Your task to perform on an android device: search for starred emails in the gmail app Image 0: 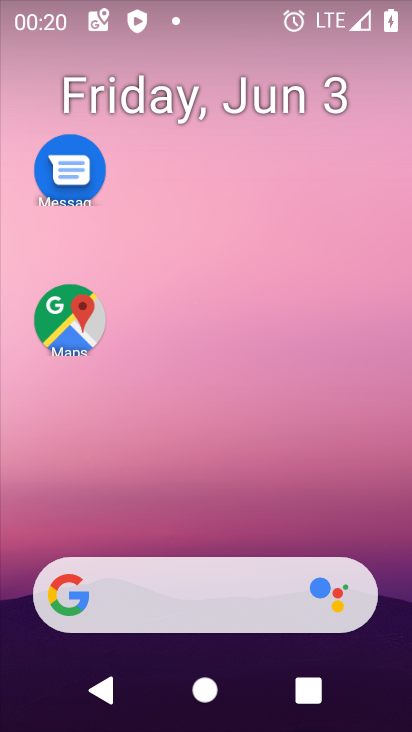
Step 0: drag from (276, 507) to (294, 48)
Your task to perform on an android device: search for starred emails in the gmail app Image 1: 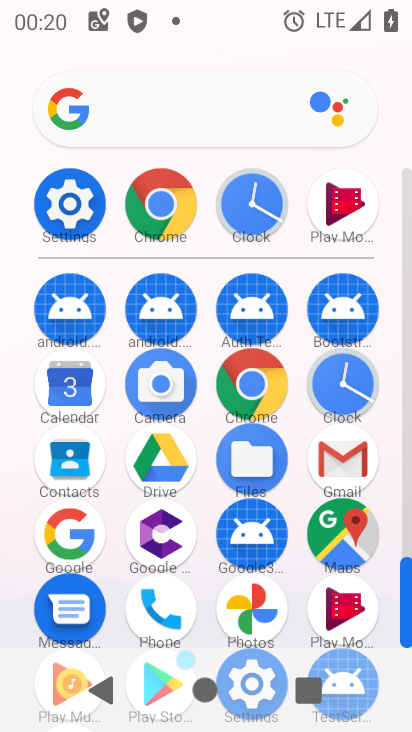
Step 1: click (342, 443)
Your task to perform on an android device: search for starred emails in the gmail app Image 2: 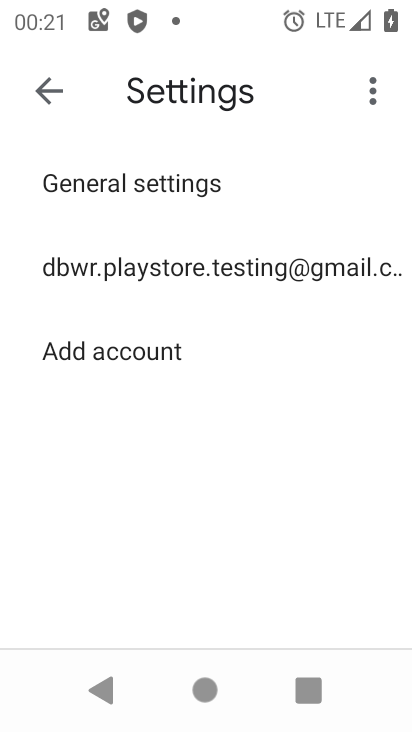
Step 2: click (68, 293)
Your task to perform on an android device: search for starred emails in the gmail app Image 3: 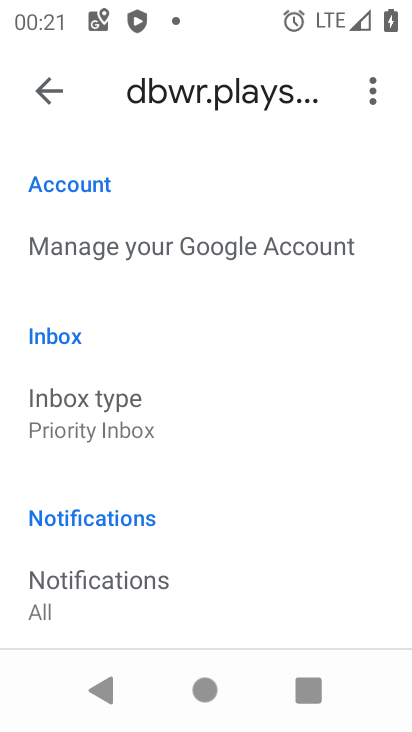
Step 3: click (38, 79)
Your task to perform on an android device: search for starred emails in the gmail app Image 4: 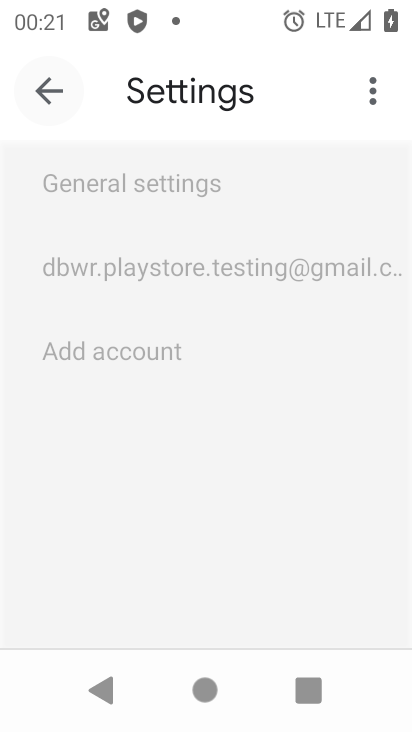
Step 4: click (38, 79)
Your task to perform on an android device: search for starred emails in the gmail app Image 5: 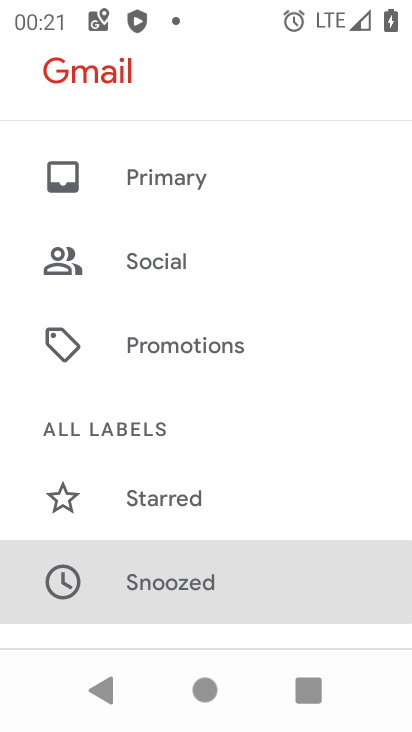
Step 5: drag from (138, 273) to (198, 138)
Your task to perform on an android device: search for starred emails in the gmail app Image 6: 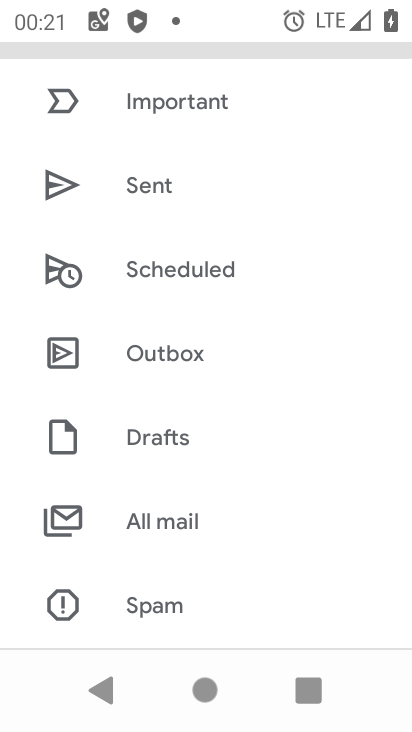
Step 6: drag from (198, 180) to (159, 723)
Your task to perform on an android device: search for starred emails in the gmail app Image 7: 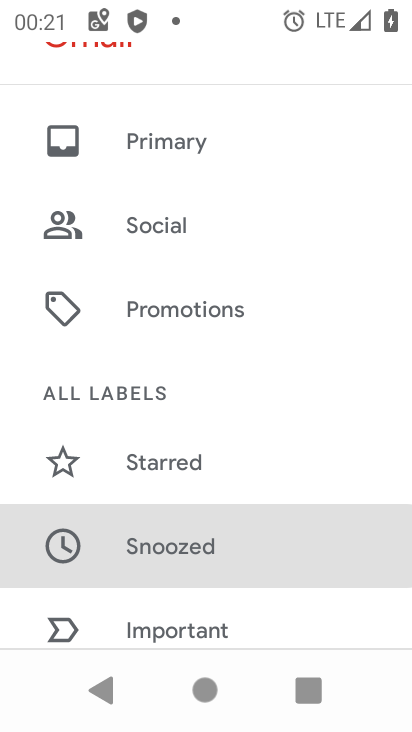
Step 7: click (164, 465)
Your task to perform on an android device: search for starred emails in the gmail app Image 8: 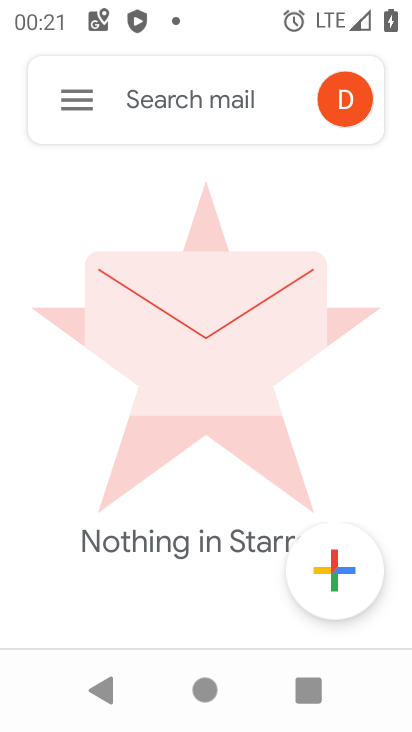
Step 8: task complete